Your task to perform on an android device: check battery use Image 0: 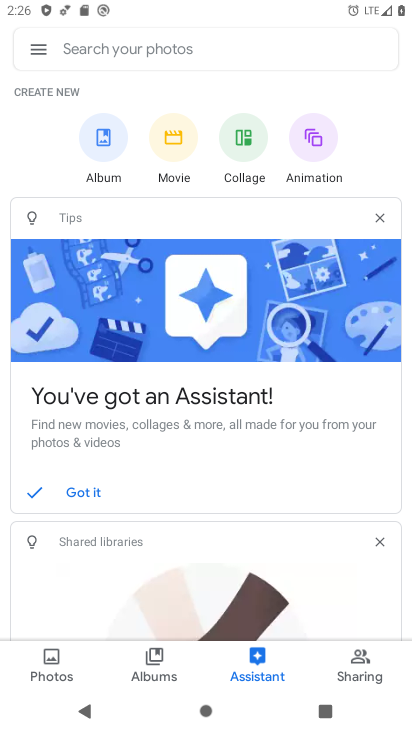
Step 0: press home button
Your task to perform on an android device: check battery use Image 1: 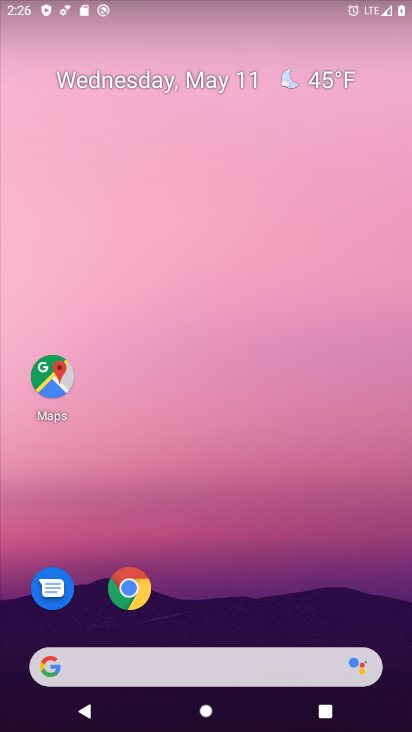
Step 1: drag from (233, 619) to (230, 349)
Your task to perform on an android device: check battery use Image 2: 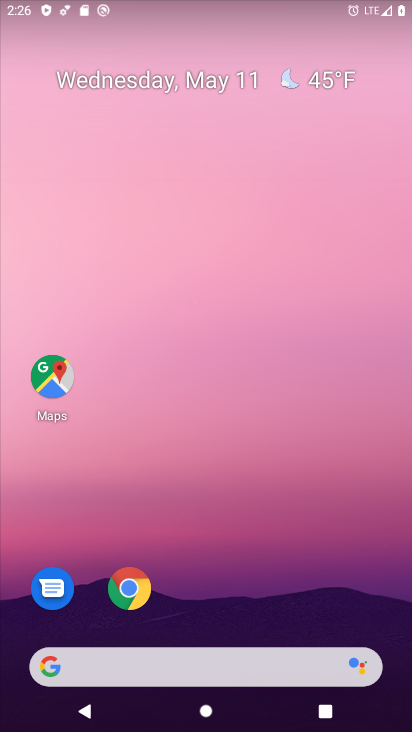
Step 2: drag from (220, 618) to (286, 192)
Your task to perform on an android device: check battery use Image 3: 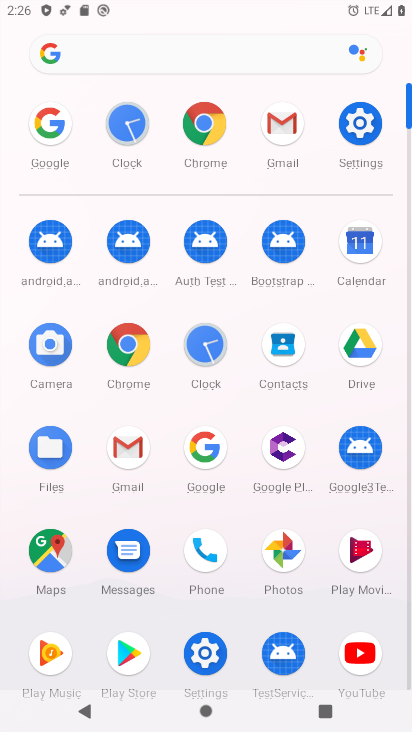
Step 3: click (348, 133)
Your task to perform on an android device: check battery use Image 4: 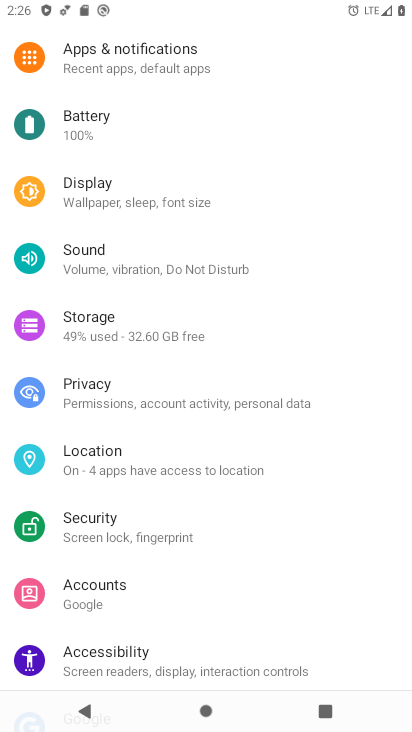
Step 4: click (101, 120)
Your task to perform on an android device: check battery use Image 5: 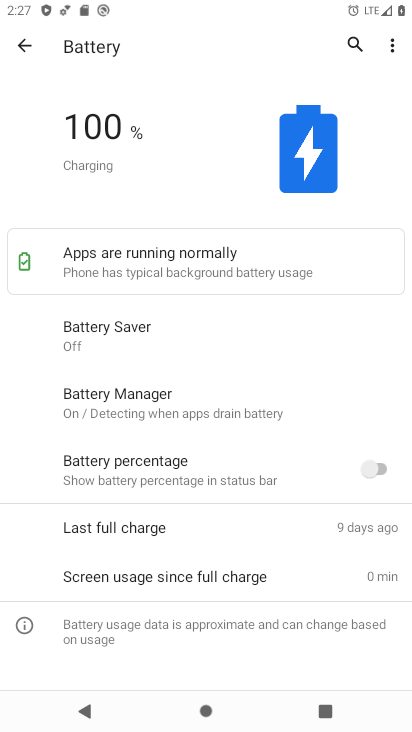
Step 5: click (391, 51)
Your task to perform on an android device: check battery use Image 6: 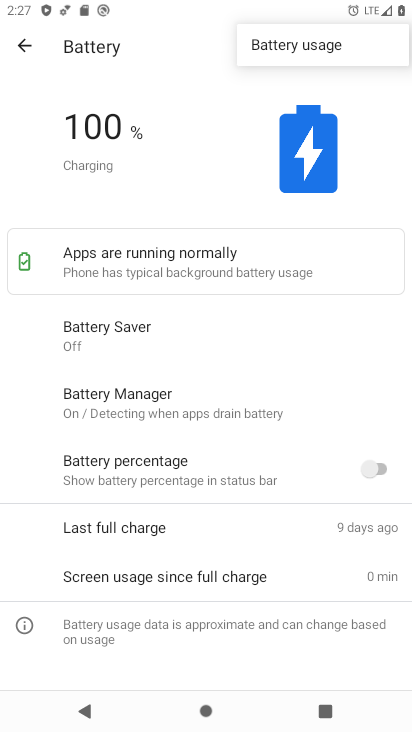
Step 6: click (354, 46)
Your task to perform on an android device: check battery use Image 7: 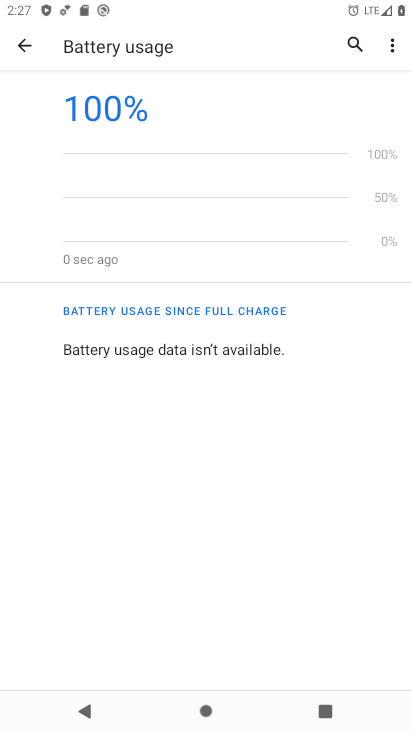
Step 7: task complete